Your task to perform on an android device: refresh tabs in the chrome app Image 0: 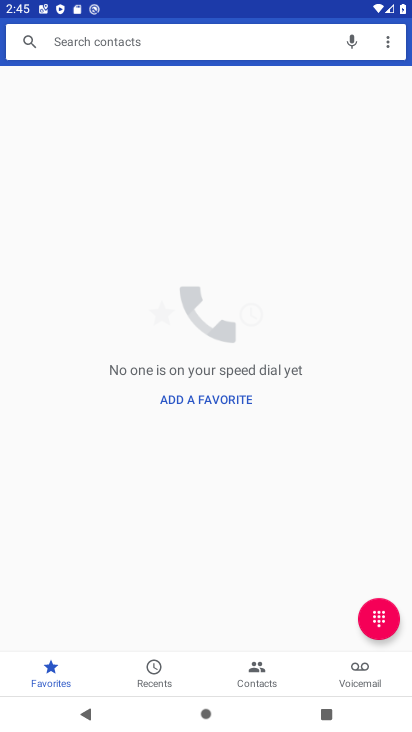
Step 0: press home button
Your task to perform on an android device: refresh tabs in the chrome app Image 1: 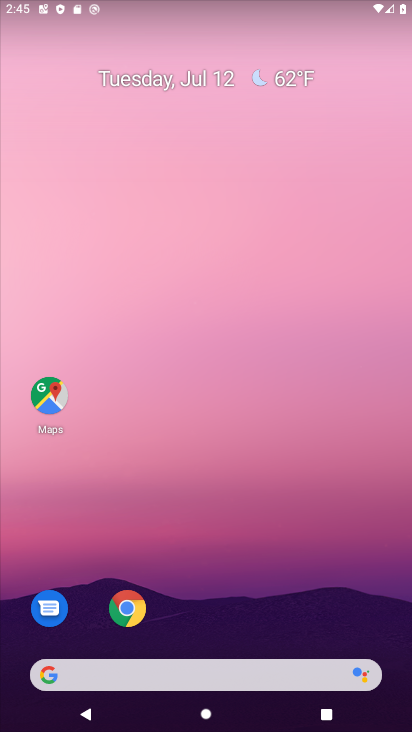
Step 1: click (126, 602)
Your task to perform on an android device: refresh tabs in the chrome app Image 2: 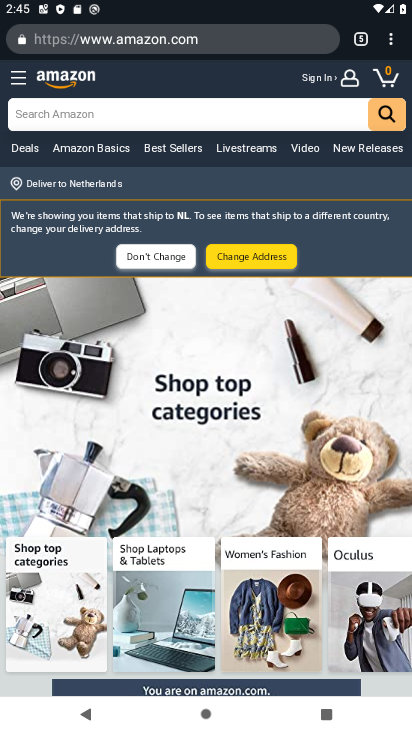
Step 2: click (389, 44)
Your task to perform on an android device: refresh tabs in the chrome app Image 3: 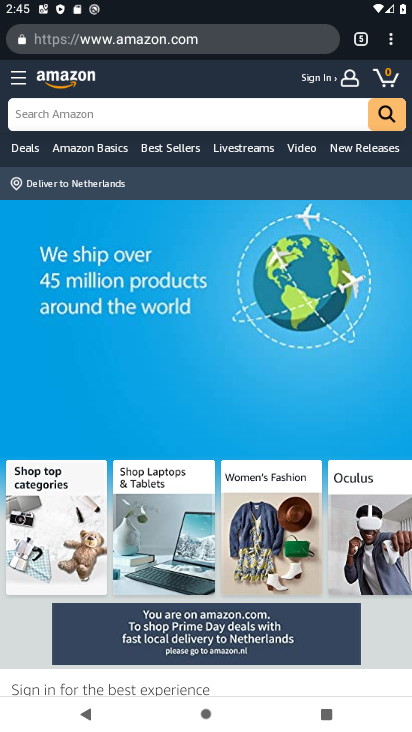
Step 3: click (391, 55)
Your task to perform on an android device: refresh tabs in the chrome app Image 4: 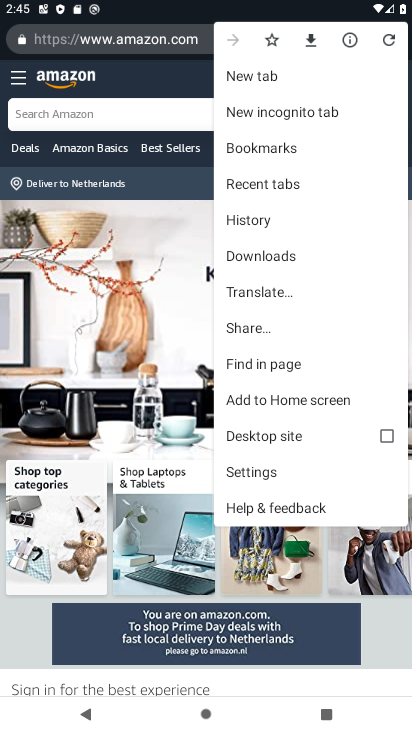
Step 4: click (386, 37)
Your task to perform on an android device: refresh tabs in the chrome app Image 5: 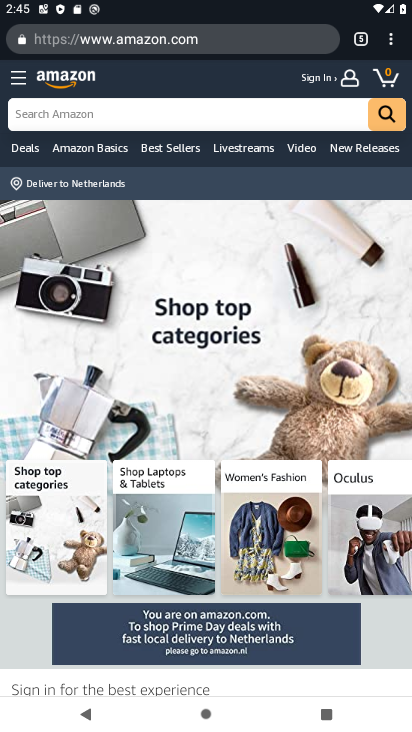
Step 5: task complete